Your task to perform on an android device: Open Google Chrome Image 0: 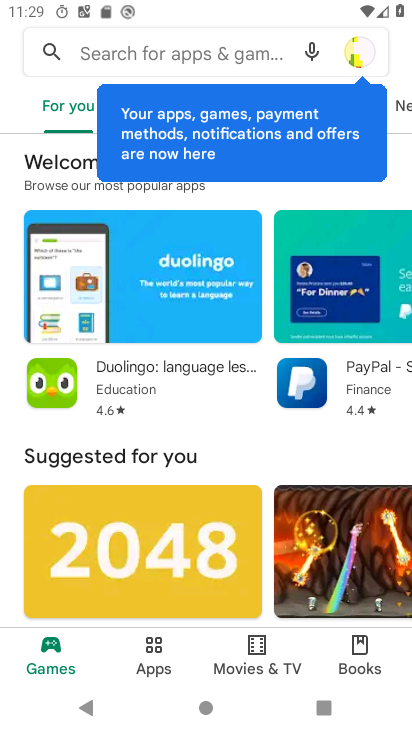
Step 0: press home button
Your task to perform on an android device: Open Google Chrome Image 1: 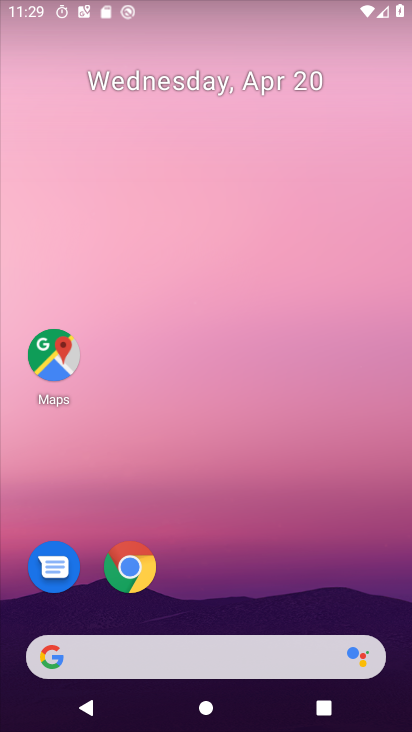
Step 1: click (146, 577)
Your task to perform on an android device: Open Google Chrome Image 2: 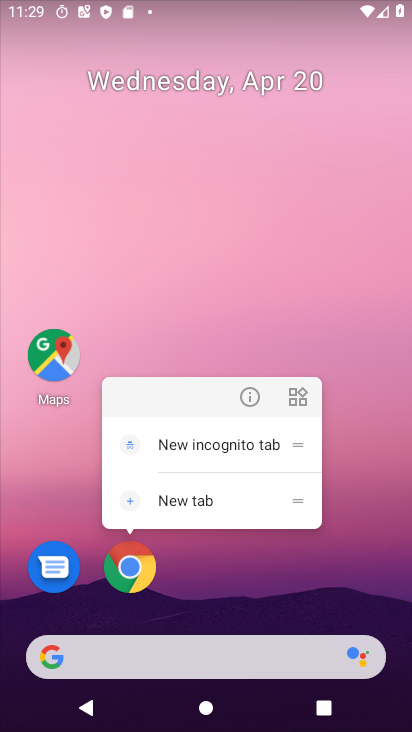
Step 2: click (255, 403)
Your task to perform on an android device: Open Google Chrome Image 3: 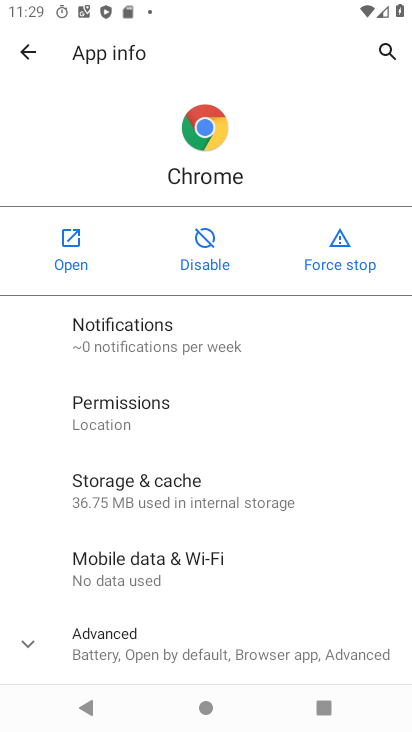
Step 3: click (86, 264)
Your task to perform on an android device: Open Google Chrome Image 4: 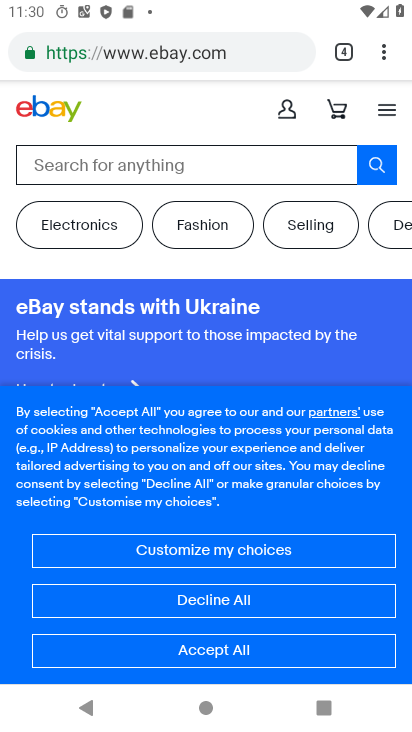
Step 4: task complete